Your task to perform on an android device: What's the weather going to be this weekend? Image 0: 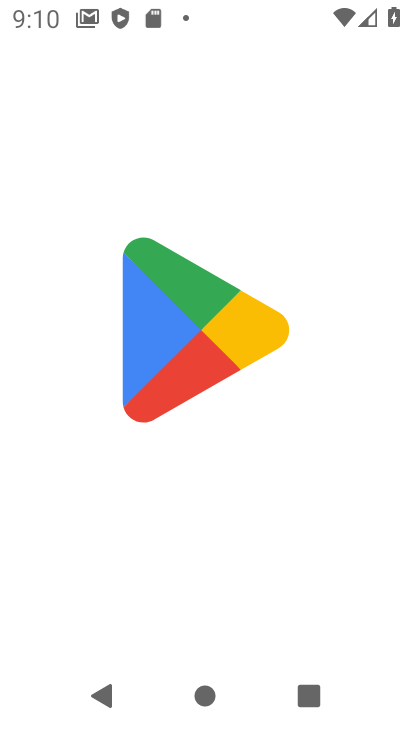
Step 0: press home button
Your task to perform on an android device: What's the weather going to be this weekend? Image 1: 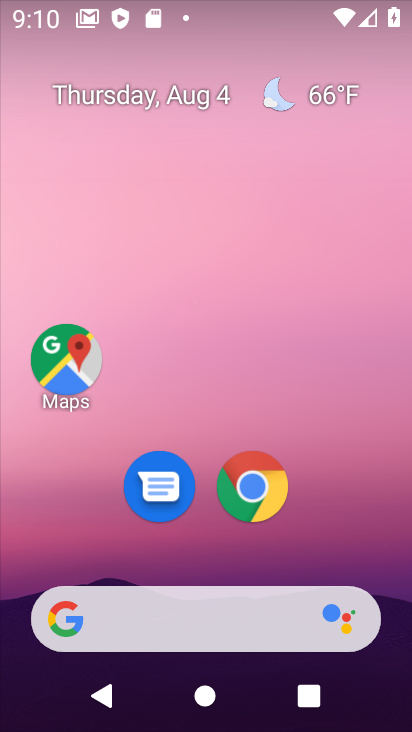
Step 1: drag from (236, 405) to (216, 177)
Your task to perform on an android device: What's the weather going to be this weekend? Image 2: 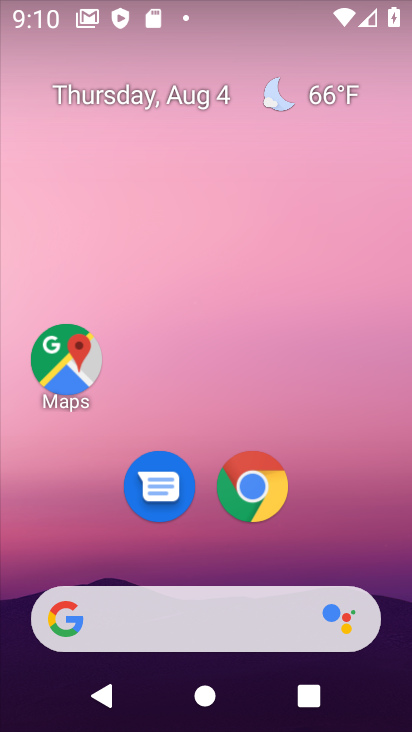
Step 2: click (216, 177)
Your task to perform on an android device: What's the weather going to be this weekend? Image 3: 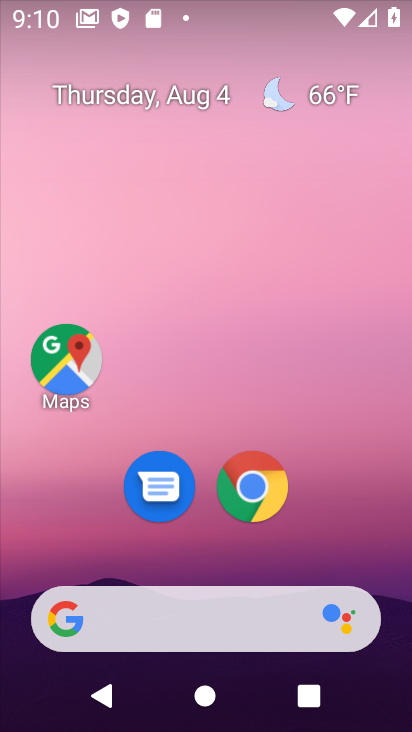
Step 3: drag from (231, 415) to (220, 75)
Your task to perform on an android device: What's the weather going to be this weekend? Image 4: 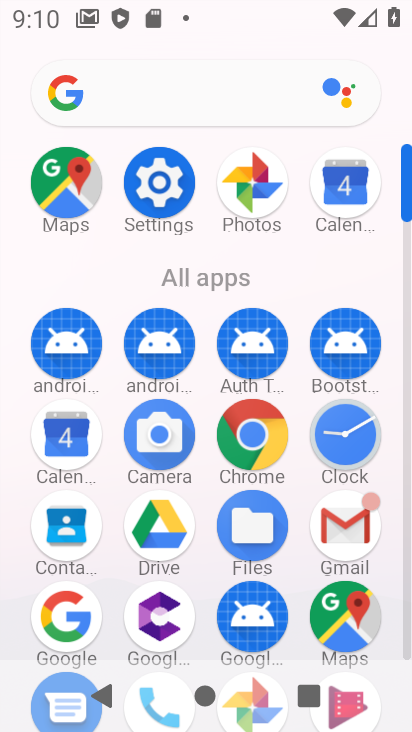
Step 4: click (248, 434)
Your task to perform on an android device: What's the weather going to be this weekend? Image 5: 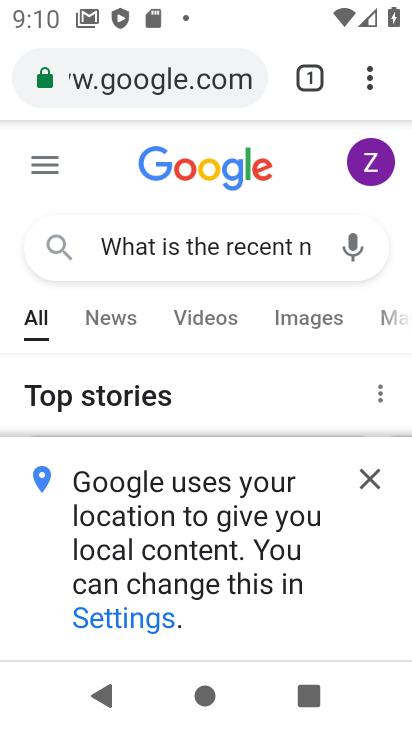
Step 5: click (260, 87)
Your task to perform on an android device: What's the weather going to be this weekend? Image 6: 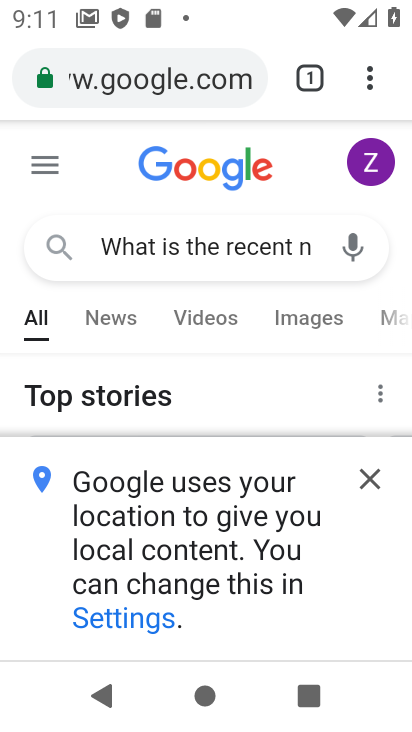
Step 6: click (172, 78)
Your task to perform on an android device: What's the weather going to be this weekend? Image 7: 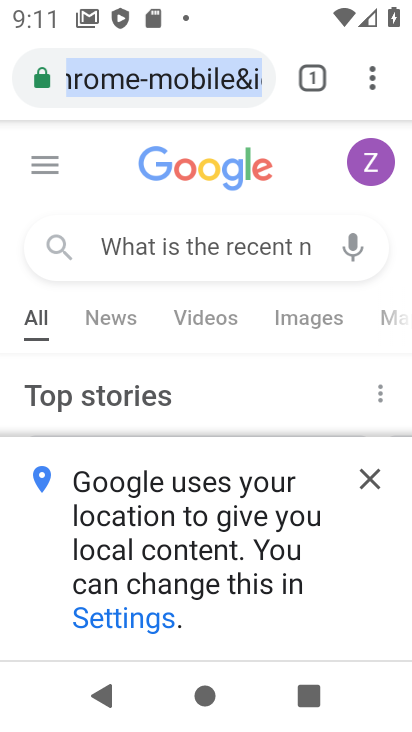
Step 7: click (172, 78)
Your task to perform on an android device: What's the weather going to be this weekend? Image 8: 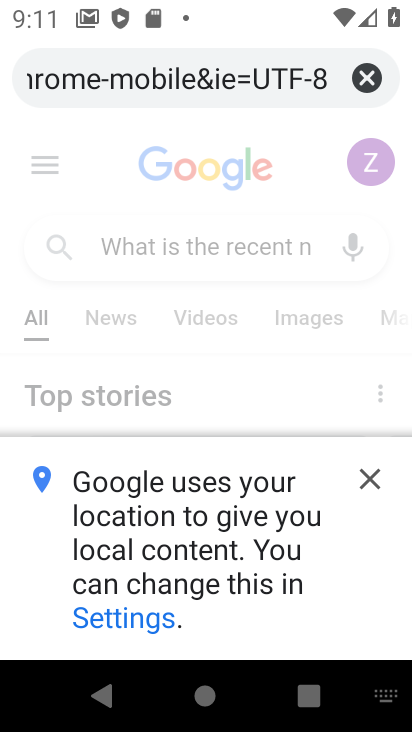
Step 8: click (373, 77)
Your task to perform on an android device: What's the weather going to be this weekend? Image 9: 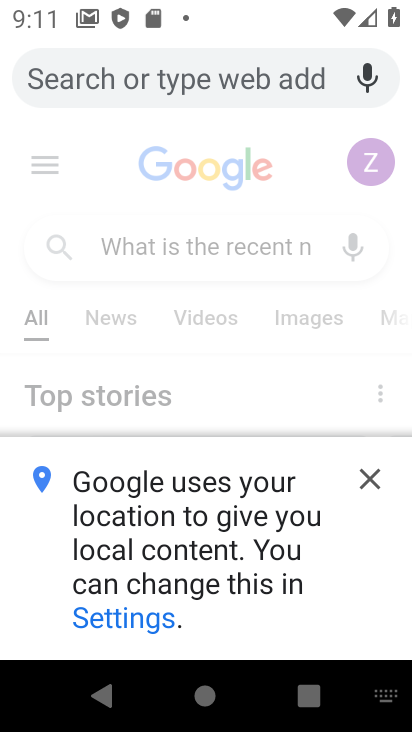
Step 9: type "What's the weather going to be this weekend?"
Your task to perform on an android device: What's the weather going to be this weekend? Image 10: 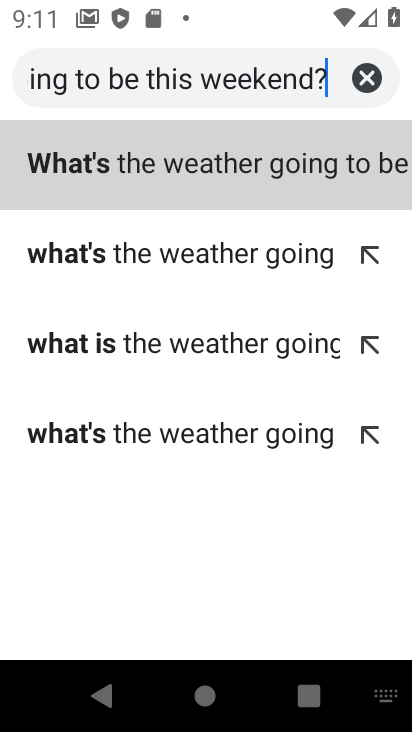
Step 10: press enter
Your task to perform on an android device: What's the weather going to be this weekend? Image 11: 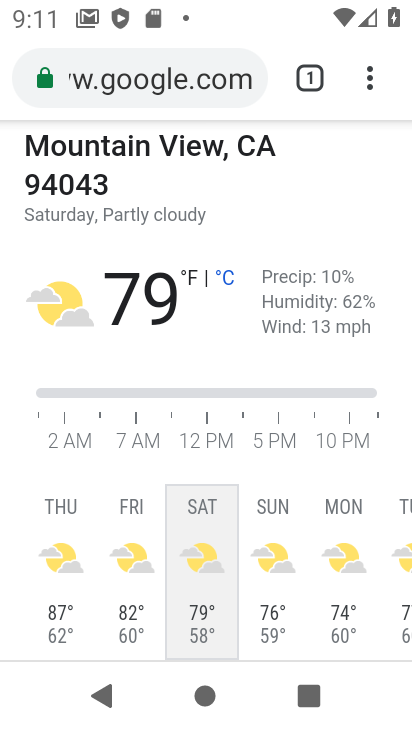
Step 11: task complete